Your task to perform on an android device: open chrome privacy settings Image 0: 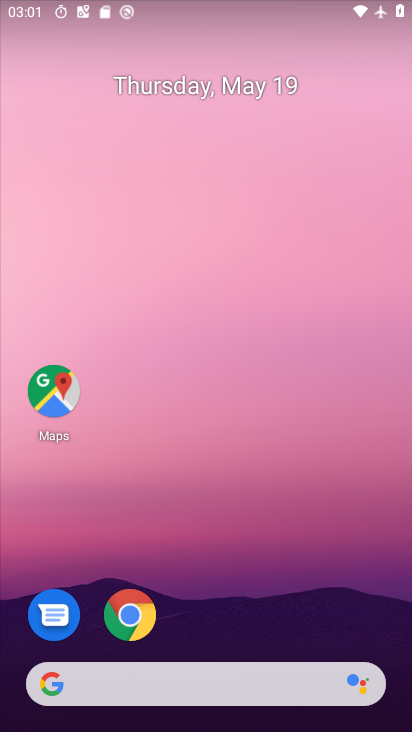
Step 0: drag from (278, 591) to (255, 48)
Your task to perform on an android device: open chrome privacy settings Image 1: 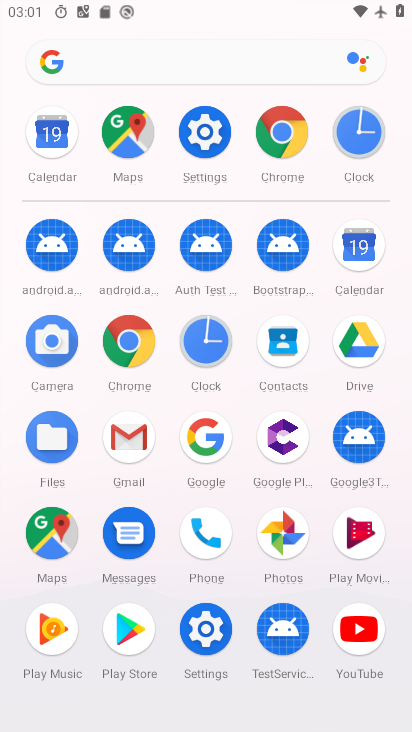
Step 1: drag from (7, 535) to (25, 255)
Your task to perform on an android device: open chrome privacy settings Image 2: 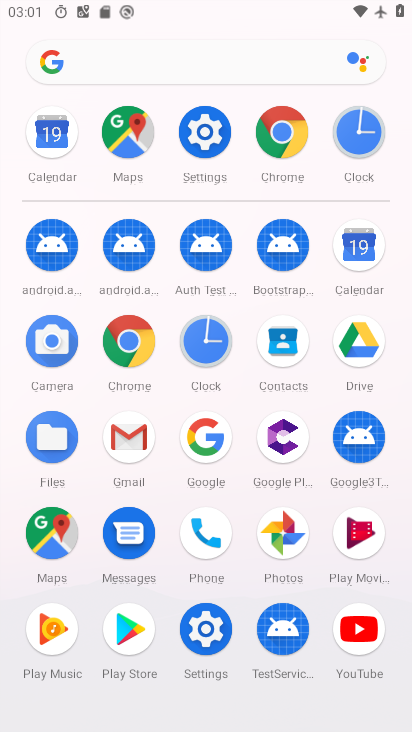
Step 2: click (287, 124)
Your task to perform on an android device: open chrome privacy settings Image 3: 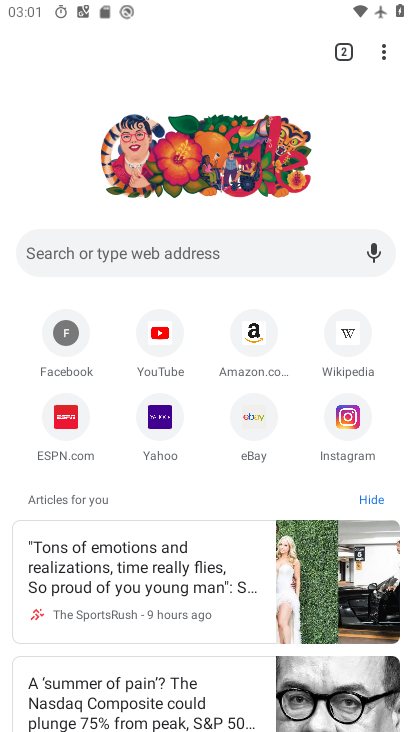
Step 3: drag from (380, 47) to (224, 435)
Your task to perform on an android device: open chrome privacy settings Image 4: 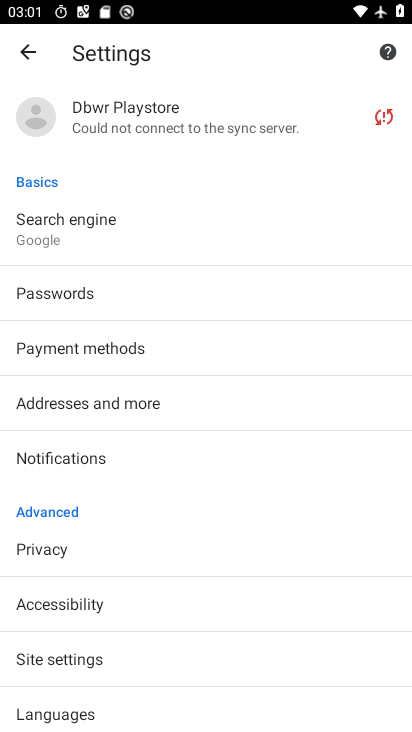
Step 4: click (69, 545)
Your task to perform on an android device: open chrome privacy settings Image 5: 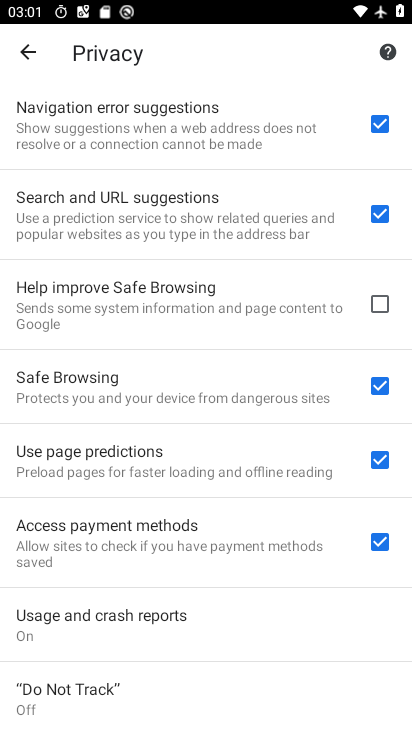
Step 5: drag from (186, 594) to (251, 105)
Your task to perform on an android device: open chrome privacy settings Image 6: 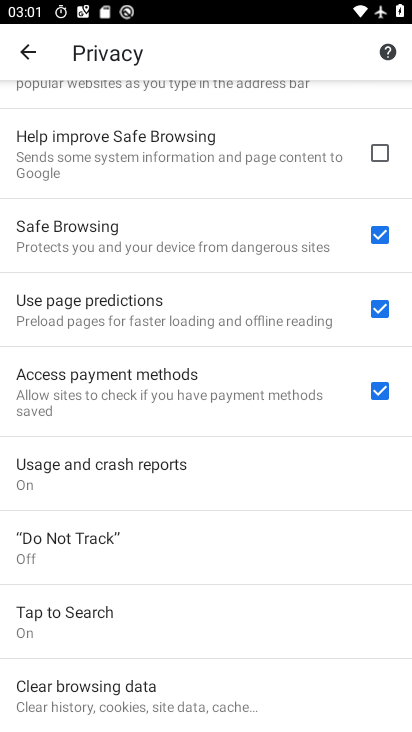
Step 6: drag from (241, 556) to (283, 181)
Your task to perform on an android device: open chrome privacy settings Image 7: 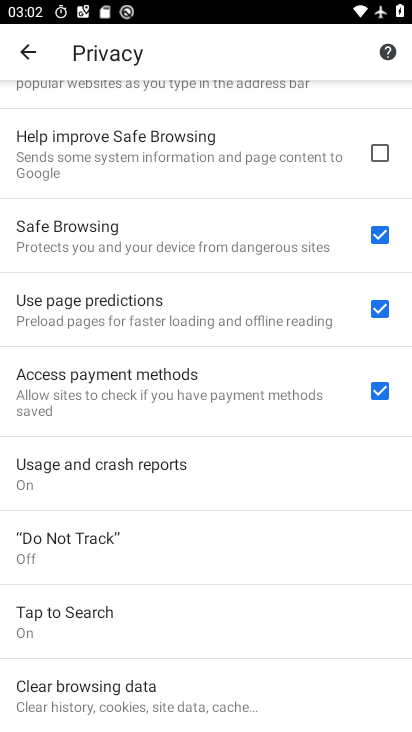
Step 7: click (92, 699)
Your task to perform on an android device: open chrome privacy settings Image 8: 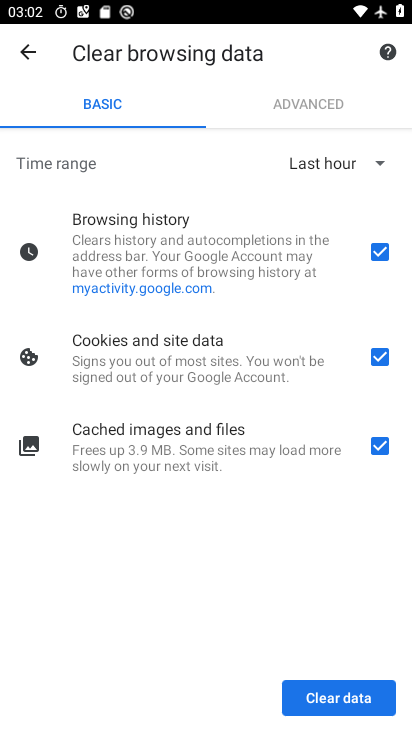
Step 8: click (33, 47)
Your task to perform on an android device: open chrome privacy settings Image 9: 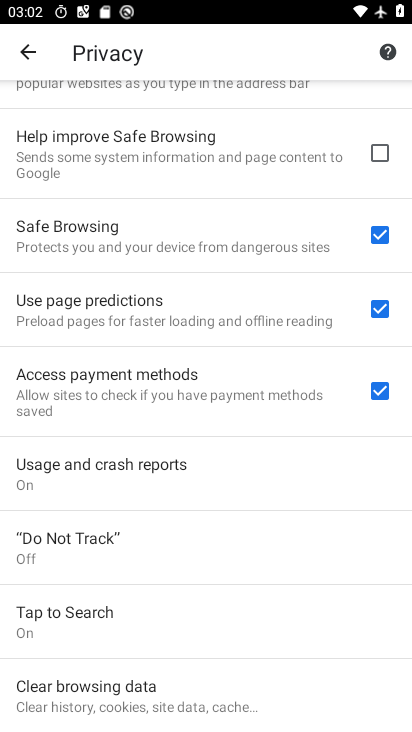
Step 9: task complete